Your task to perform on an android device: Open Youtube and go to the subscriptions tab Image 0: 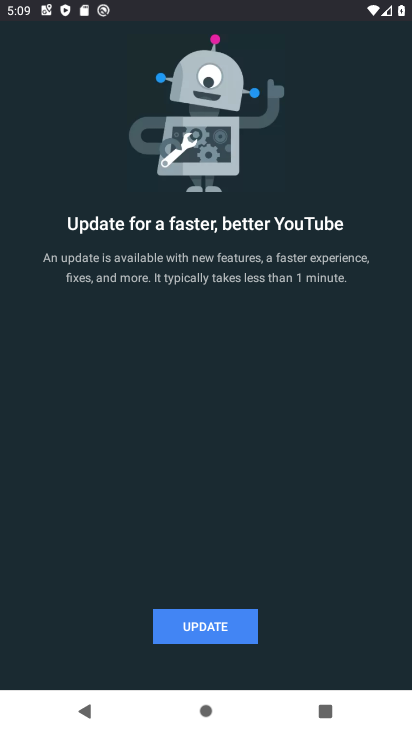
Step 0: press home button
Your task to perform on an android device: Open Youtube and go to the subscriptions tab Image 1: 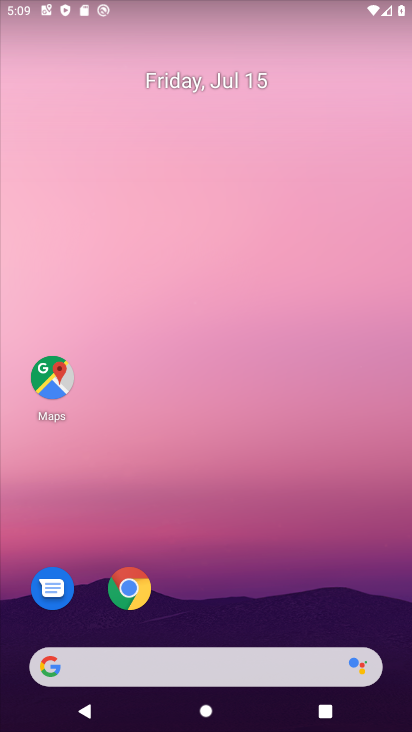
Step 1: drag from (275, 649) to (410, 54)
Your task to perform on an android device: Open Youtube and go to the subscriptions tab Image 2: 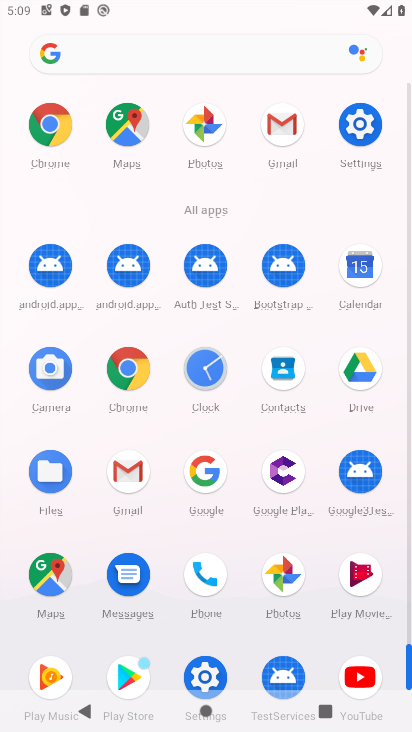
Step 2: click (369, 673)
Your task to perform on an android device: Open Youtube and go to the subscriptions tab Image 3: 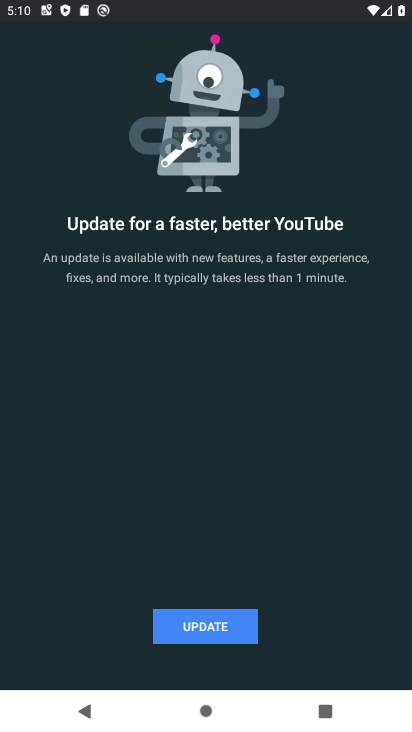
Step 3: click (227, 631)
Your task to perform on an android device: Open Youtube and go to the subscriptions tab Image 4: 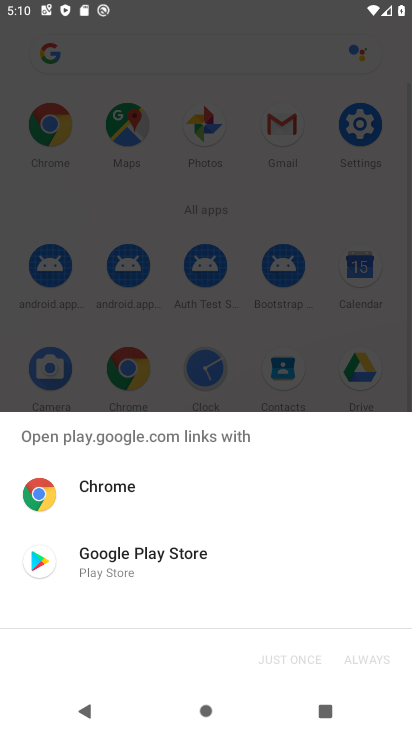
Step 4: click (178, 564)
Your task to perform on an android device: Open Youtube and go to the subscriptions tab Image 5: 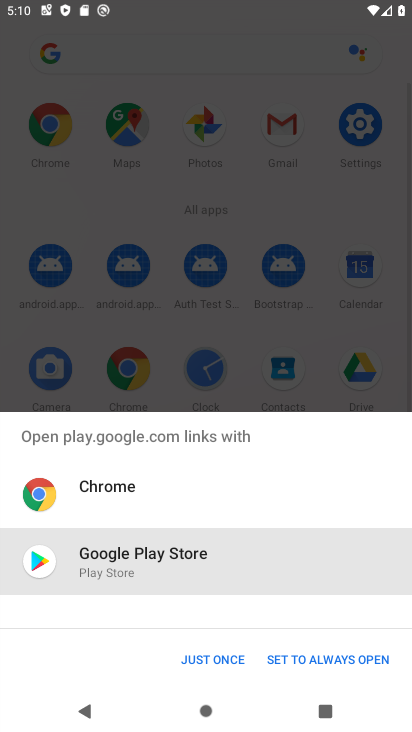
Step 5: click (220, 659)
Your task to perform on an android device: Open Youtube and go to the subscriptions tab Image 6: 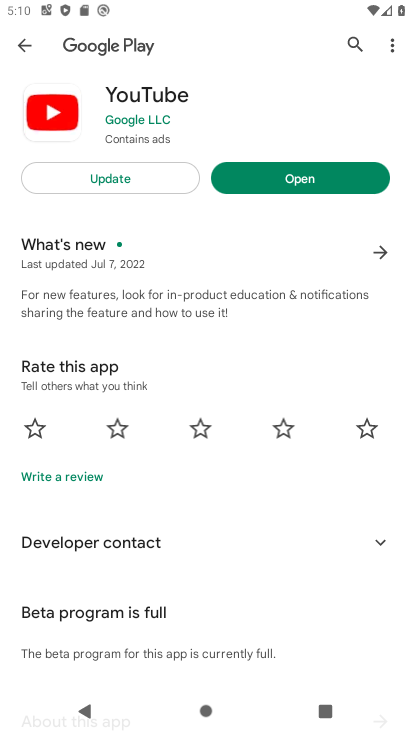
Step 6: click (293, 176)
Your task to perform on an android device: Open Youtube and go to the subscriptions tab Image 7: 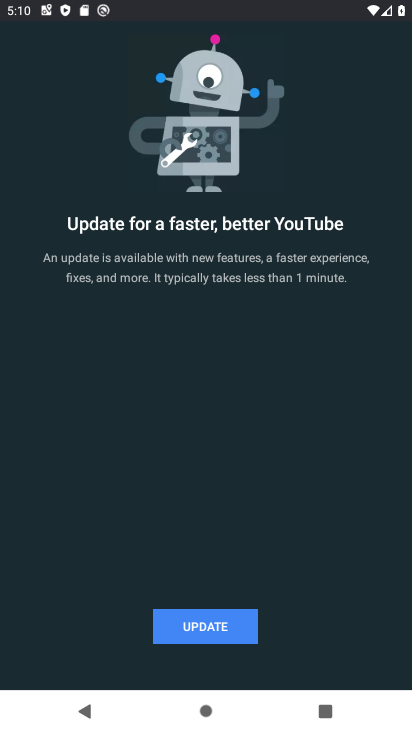
Step 7: click (208, 626)
Your task to perform on an android device: Open Youtube and go to the subscriptions tab Image 8: 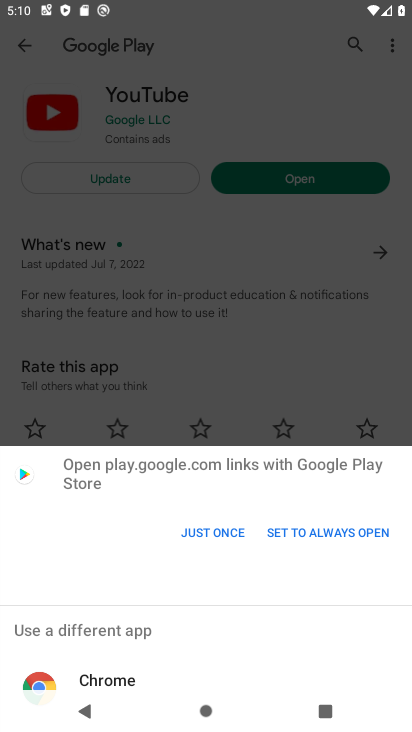
Step 8: click (223, 529)
Your task to perform on an android device: Open Youtube and go to the subscriptions tab Image 9: 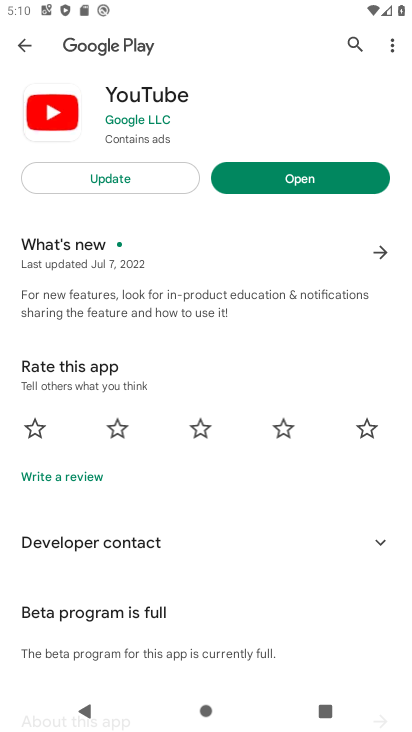
Step 9: click (161, 181)
Your task to perform on an android device: Open Youtube and go to the subscriptions tab Image 10: 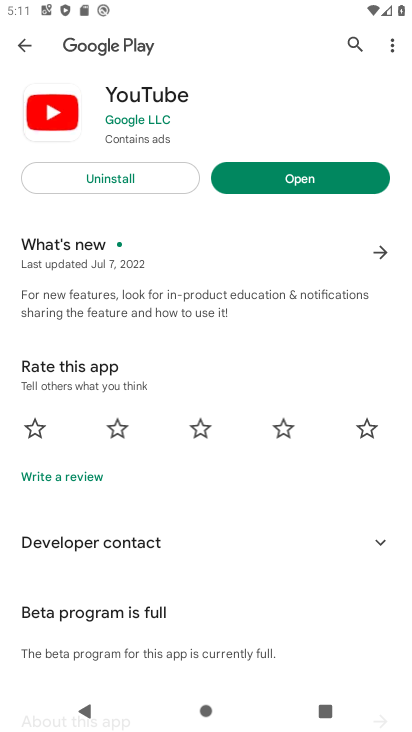
Step 10: click (339, 185)
Your task to perform on an android device: Open Youtube and go to the subscriptions tab Image 11: 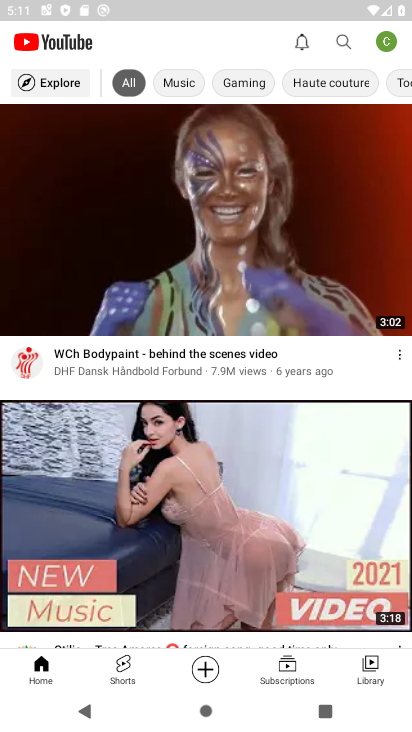
Step 11: click (294, 673)
Your task to perform on an android device: Open Youtube and go to the subscriptions tab Image 12: 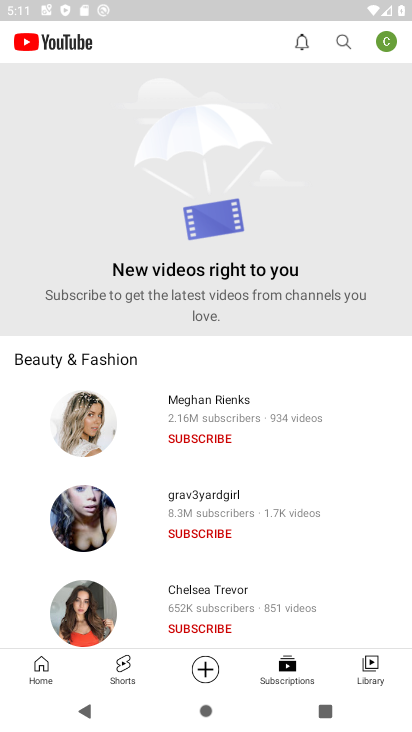
Step 12: task complete